Your task to perform on an android device: Search for seafood restaurants on Google Maps Image 0: 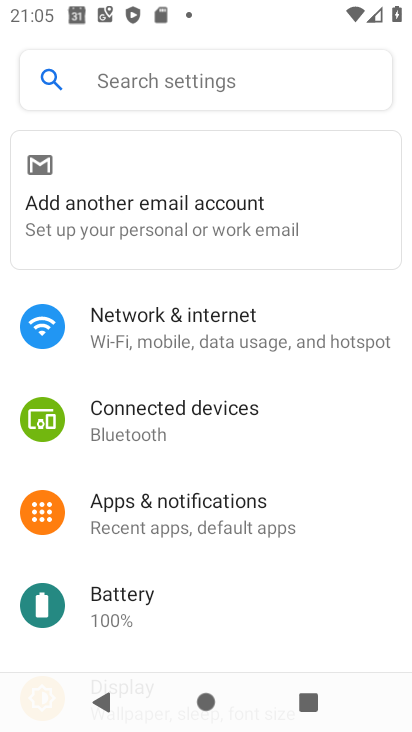
Step 0: press home button
Your task to perform on an android device: Search for seafood restaurants on Google Maps Image 1: 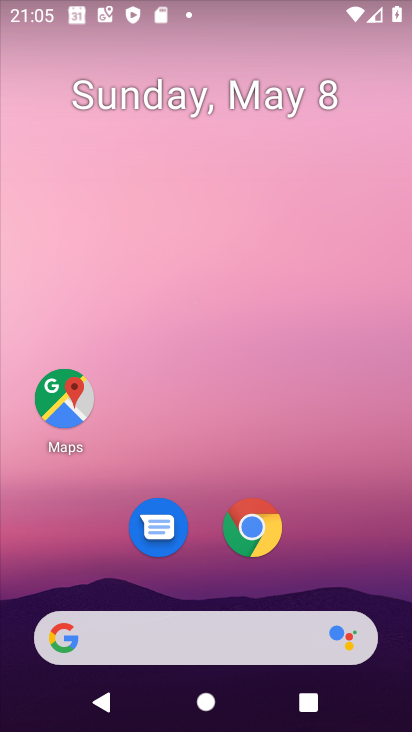
Step 1: click (57, 401)
Your task to perform on an android device: Search for seafood restaurants on Google Maps Image 2: 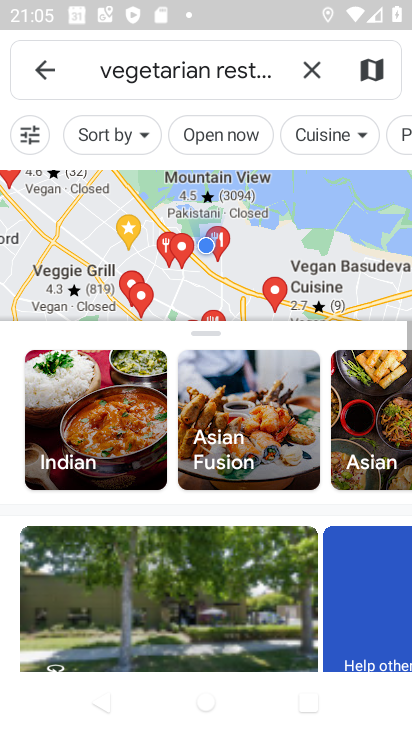
Step 2: click (312, 62)
Your task to perform on an android device: Search for seafood restaurants on Google Maps Image 3: 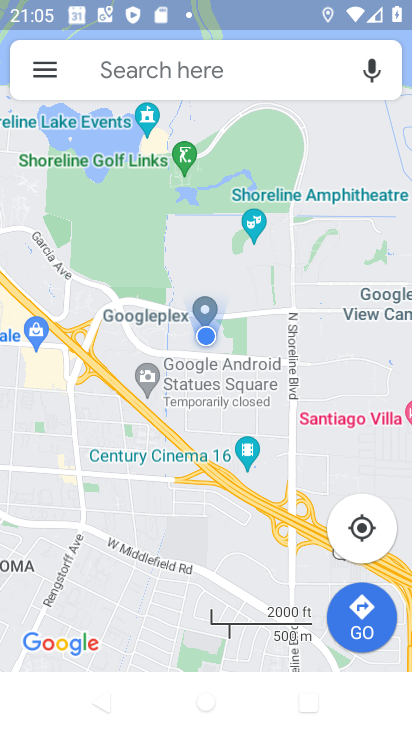
Step 3: click (171, 69)
Your task to perform on an android device: Search for seafood restaurants on Google Maps Image 4: 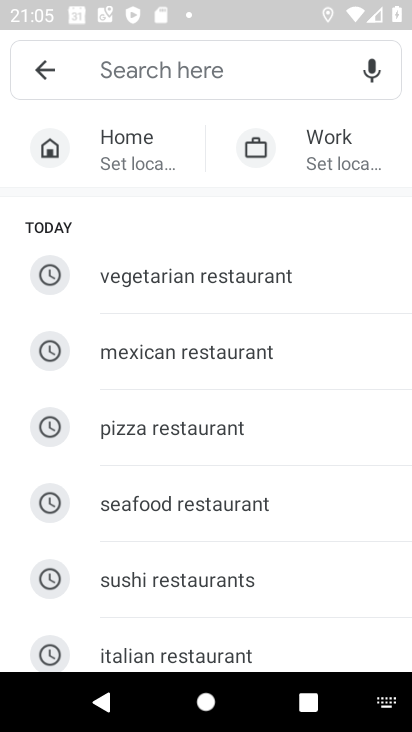
Step 4: click (180, 511)
Your task to perform on an android device: Search for seafood restaurants on Google Maps Image 5: 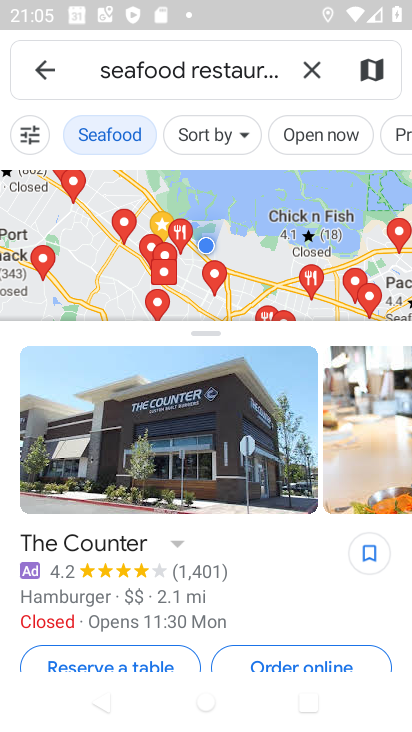
Step 5: task complete